Your task to perform on an android device: Do I have any events today? Image 0: 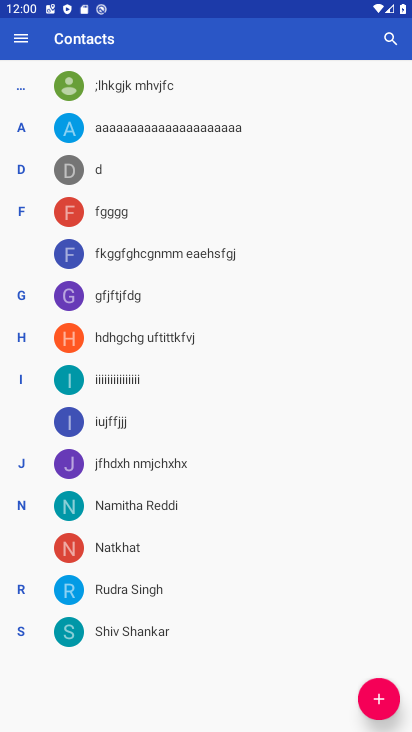
Step 0: press home button
Your task to perform on an android device: Do I have any events today? Image 1: 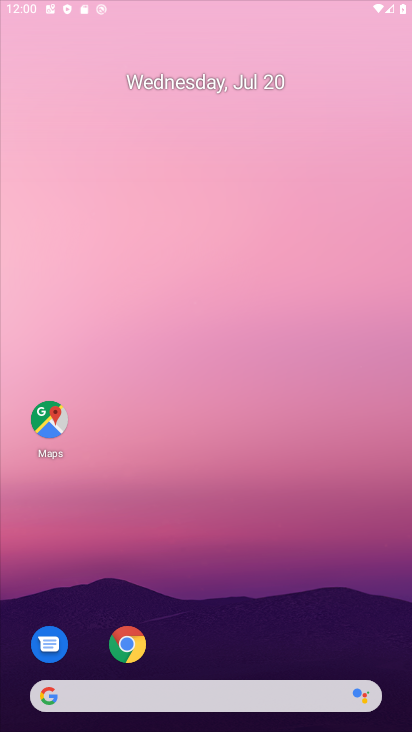
Step 1: drag from (247, 682) to (193, 75)
Your task to perform on an android device: Do I have any events today? Image 2: 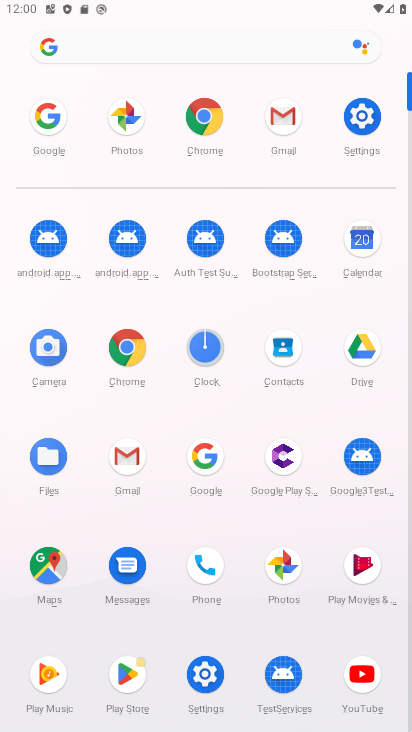
Step 2: click (351, 244)
Your task to perform on an android device: Do I have any events today? Image 3: 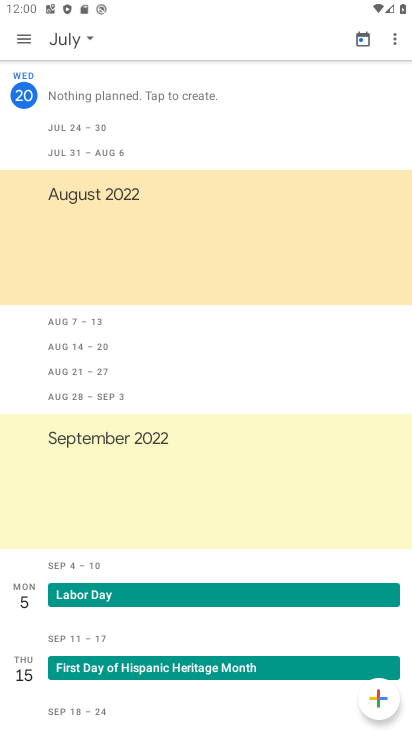
Step 3: task complete